Your task to perform on an android device: find which apps use the phone's location Image 0: 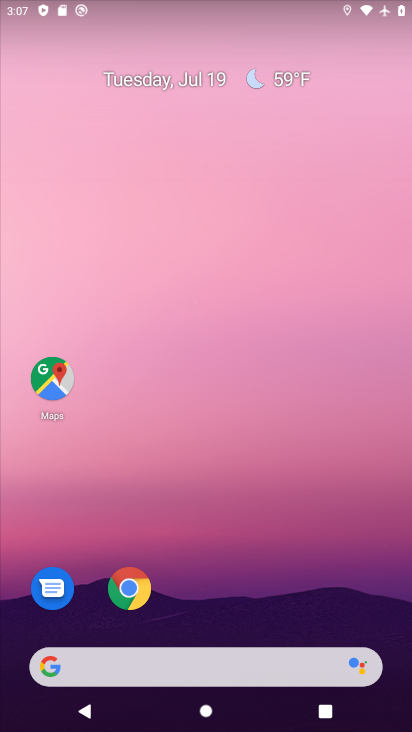
Step 0: press home button
Your task to perform on an android device: find which apps use the phone's location Image 1: 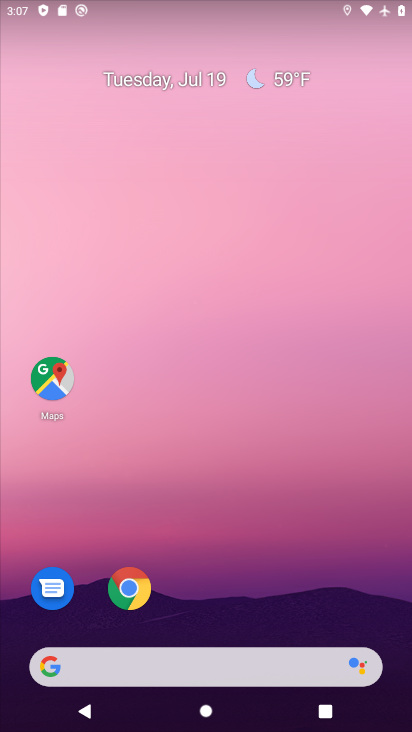
Step 1: drag from (248, 620) to (289, 87)
Your task to perform on an android device: find which apps use the phone's location Image 2: 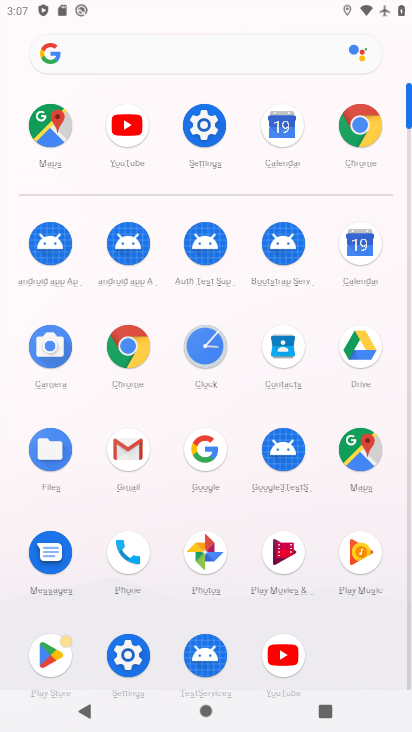
Step 2: click (210, 125)
Your task to perform on an android device: find which apps use the phone's location Image 3: 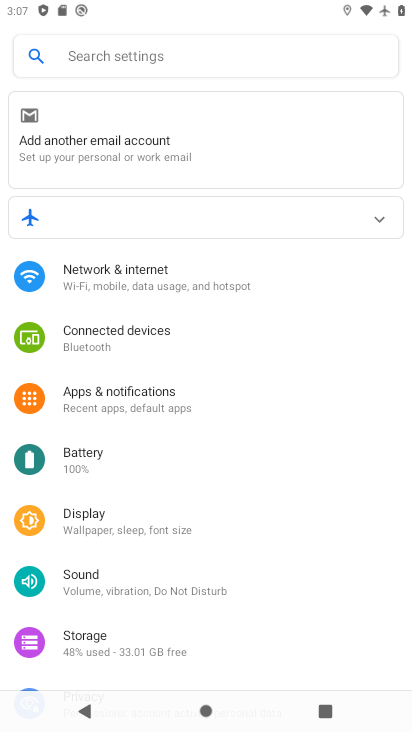
Step 3: drag from (161, 665) to (177, 355)
Your task to perform on an android device: find which apps use the phone's location Image 4: 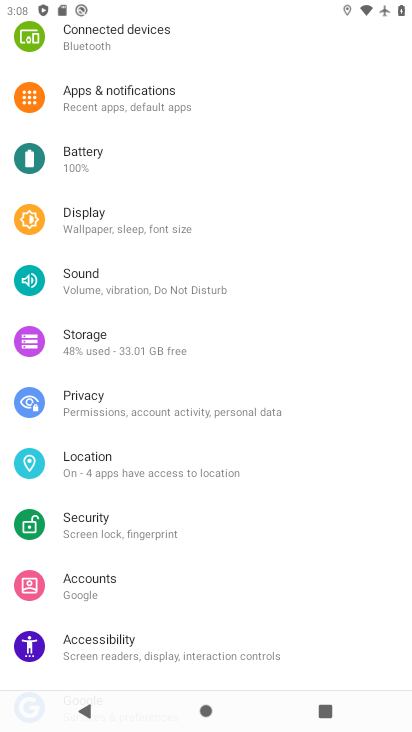
Step 4: click (98, 468)
Your task to perform on an android device: find which apps use the phone's location Image 5: 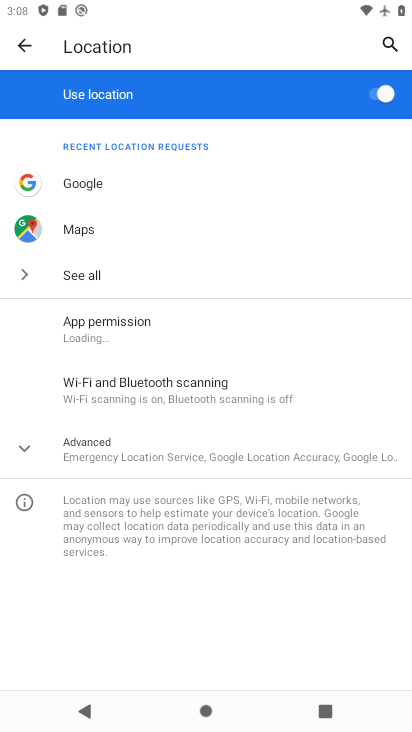
Step 5: click (110, 320)
Your task to perform on an android device: find which apps use the phone's location Image 6: 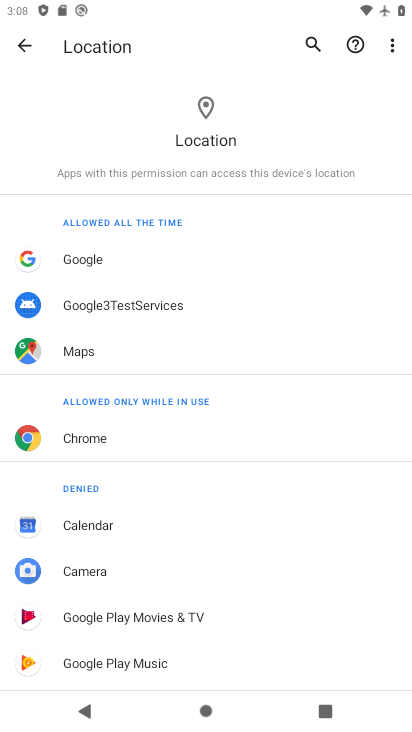
Step 6: task complete